Your task to perform on an android device: Go to internet settings Image 0: 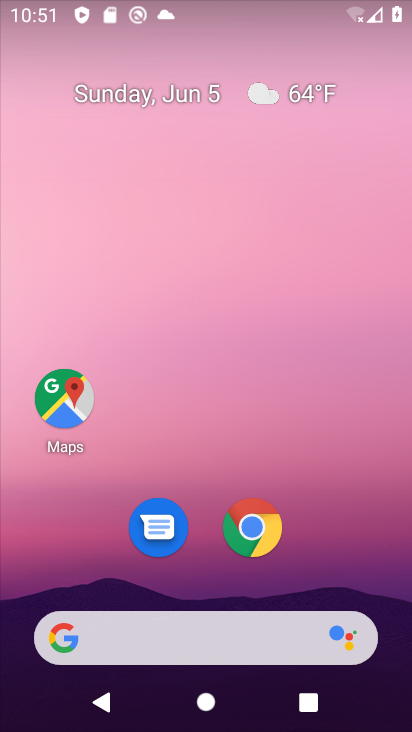
Step 0: drag from (328, 570) to (343, 63)
Your task to perform on an android device: Go to internet settings Image 1: 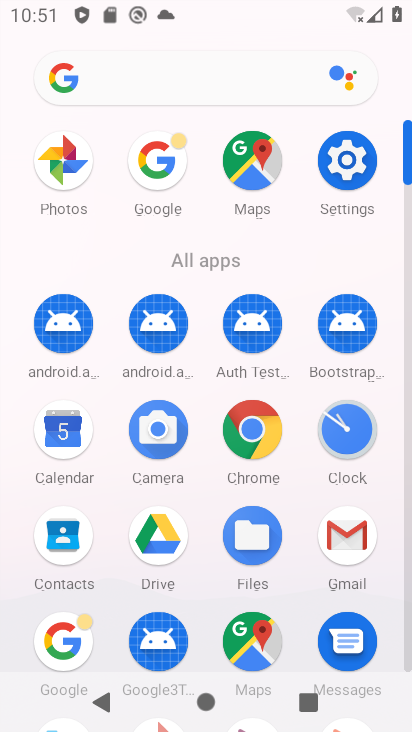
Step 1: click (351, 162)
Your task to perform on an android device: Go to internet settings Image 2: 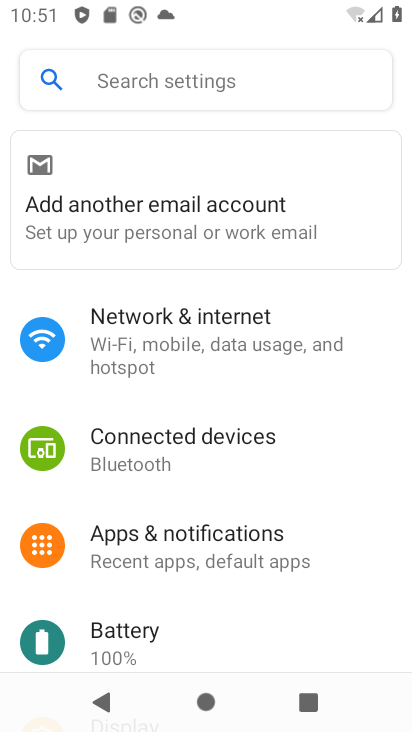
Step 2: click (218, 336)
Your task to perform on an android device: Go to internet settings Image 3: 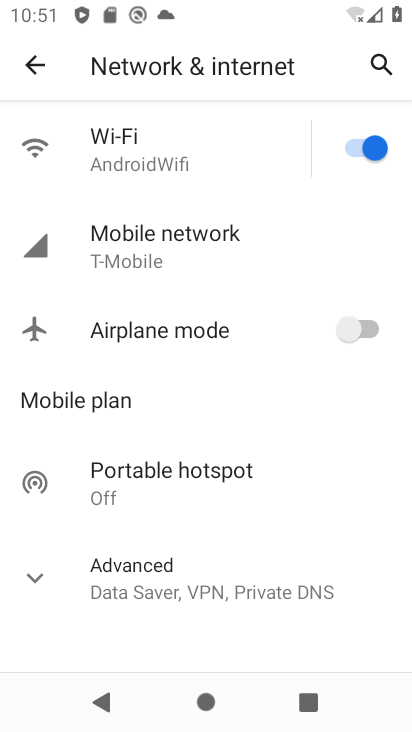
Step 3: task complete